Your task to perform on an android device: What's the weather? Image 0: 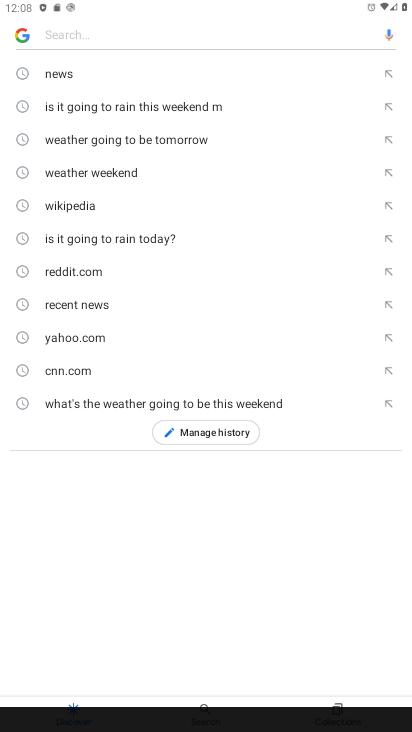
Step 0: drag from (189, 620) to (192, 14)
Your task to perform on an android device: What's the weather? Image 1: 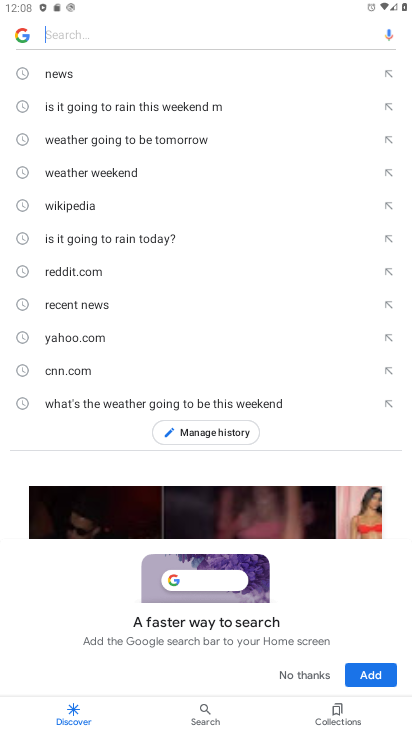
Step 1: click (106, 30)
Your task to perform on an android device: What's the weather? Image 2: 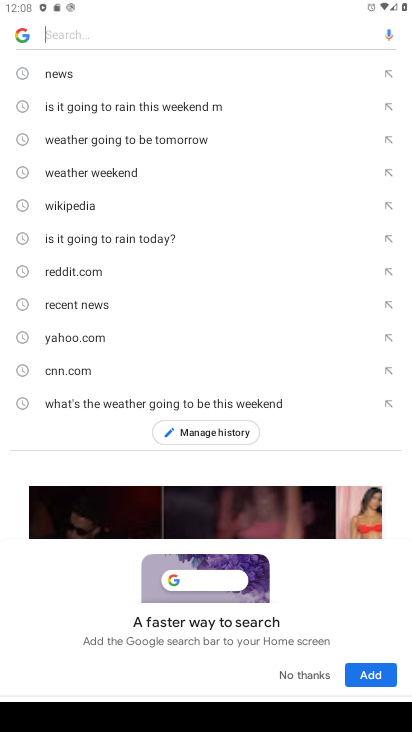
Step 2: type "weather"
Your task to perform on an android device: What's the weather? Image 3: 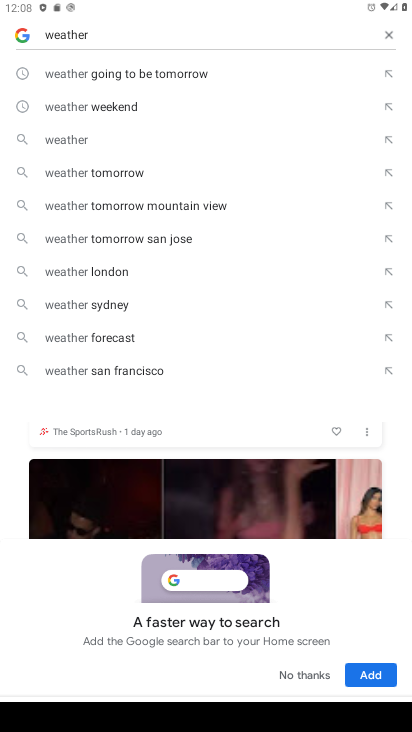
Step 3: click (76, 137)
Your task to perform on an android device: What's the weather? Image 4: 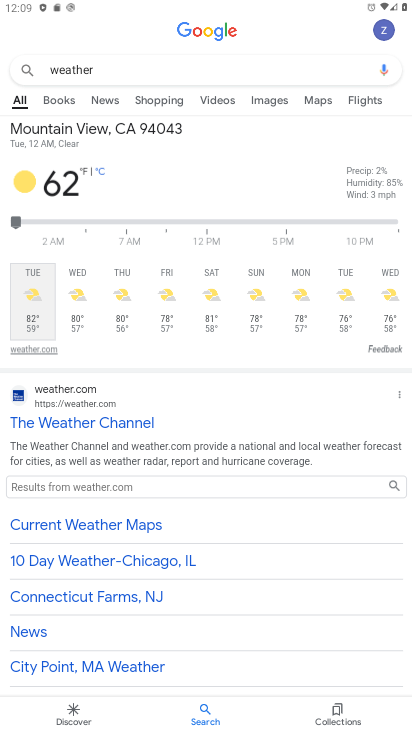
Step 4: task complete